Your task to perform on an android device: Open Android settings Image 0: 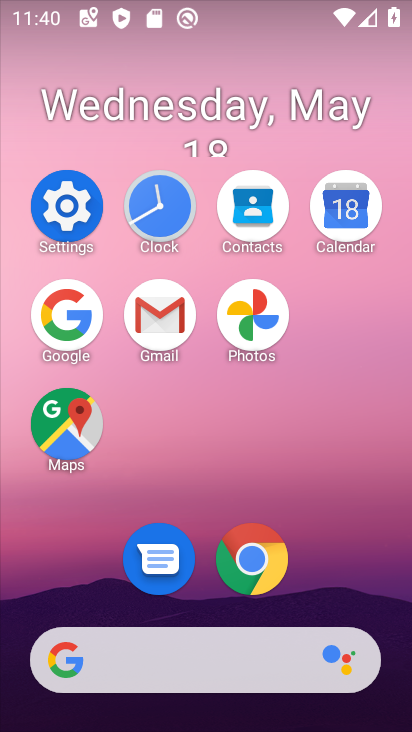
Step 0: click (64, 218)
Your task to perform on an android device: Open Android settings Image 1: 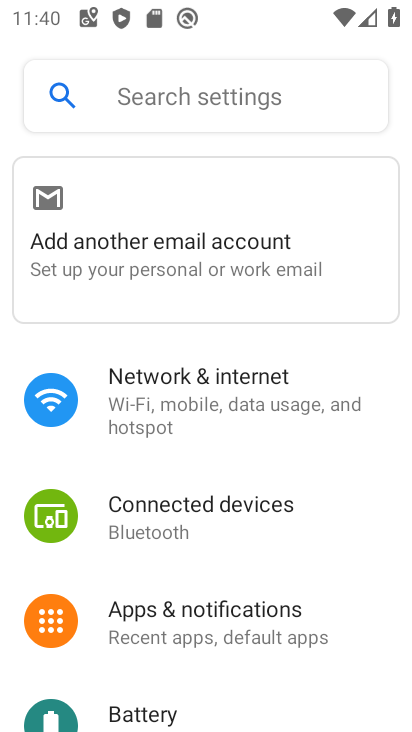
Step 1: task complete